Your task to perform on an android device: open app "LinkedIn" Image 0: 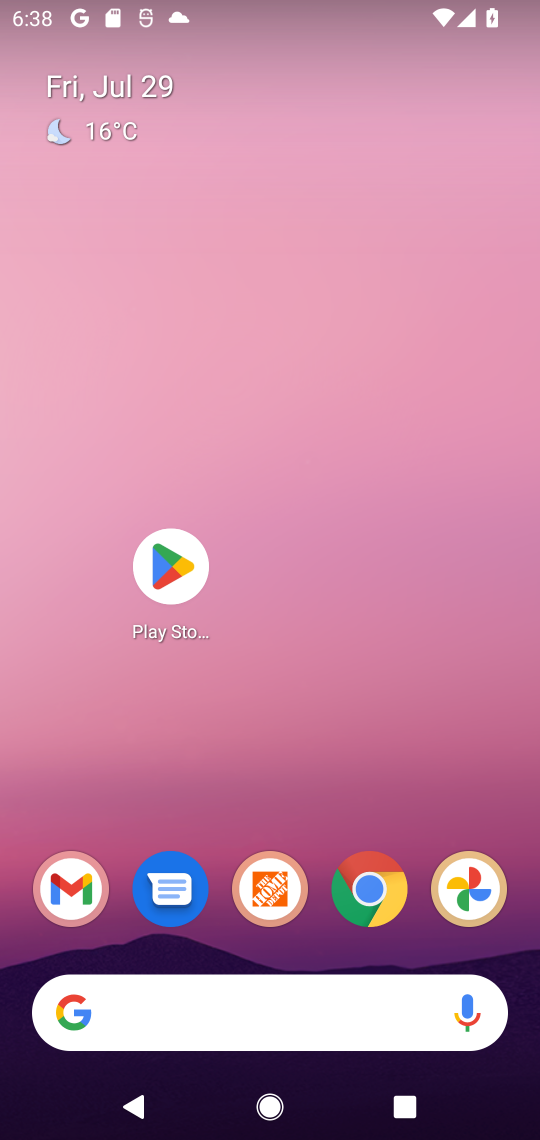
Step 0: click (157, 566)
Your task to perform on an android device: open app "LinkedIn" Image 1: 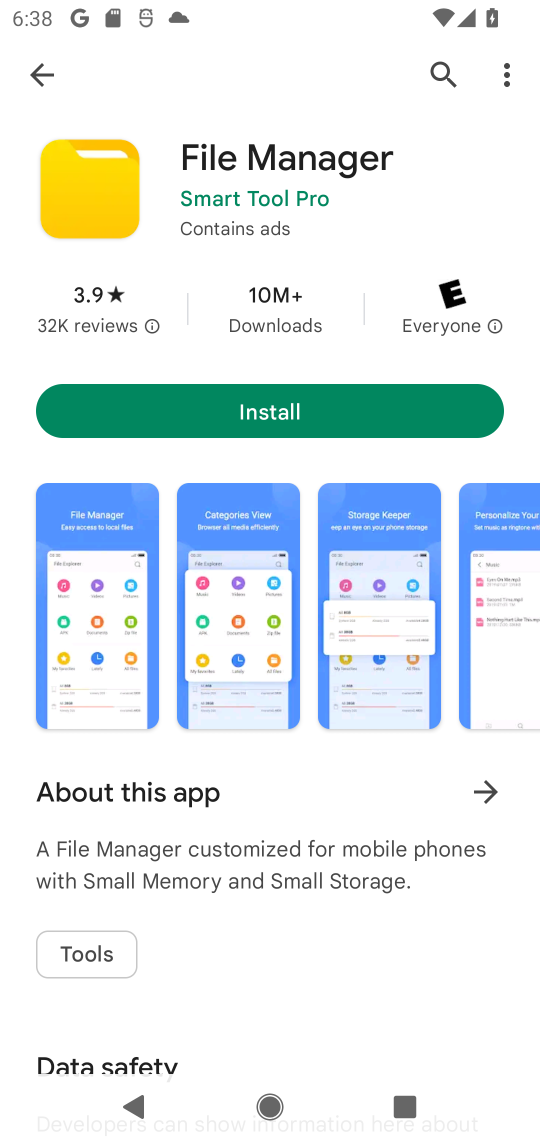
Step 1: click (439, 61)
Your task to perform on an android device: open app "LinkedIn" Image 2: 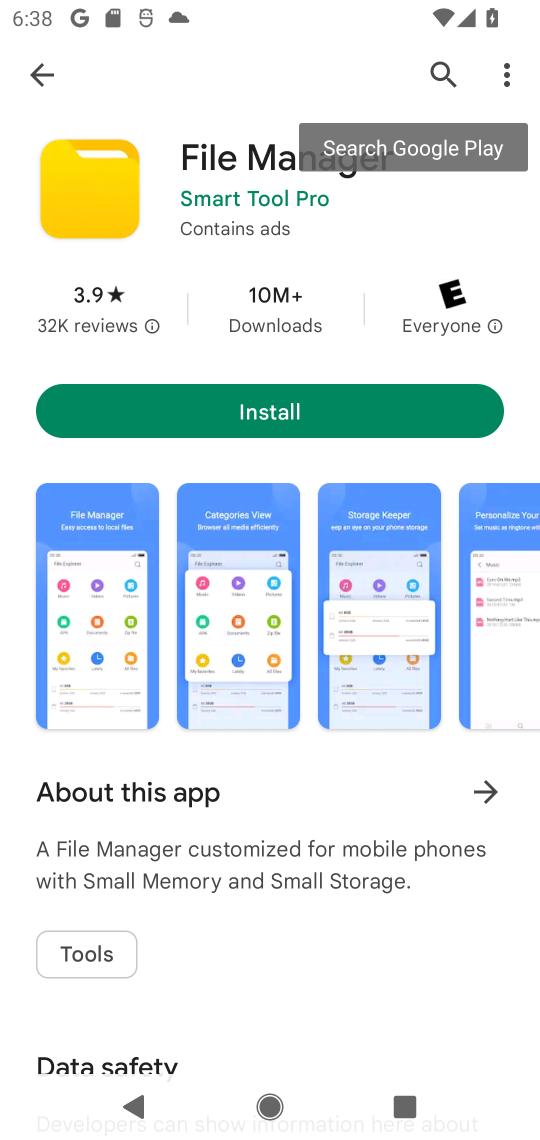
Step 2: click (432, 72)
Your task to perform on an android device: open app "LinkedIn" Image 3: 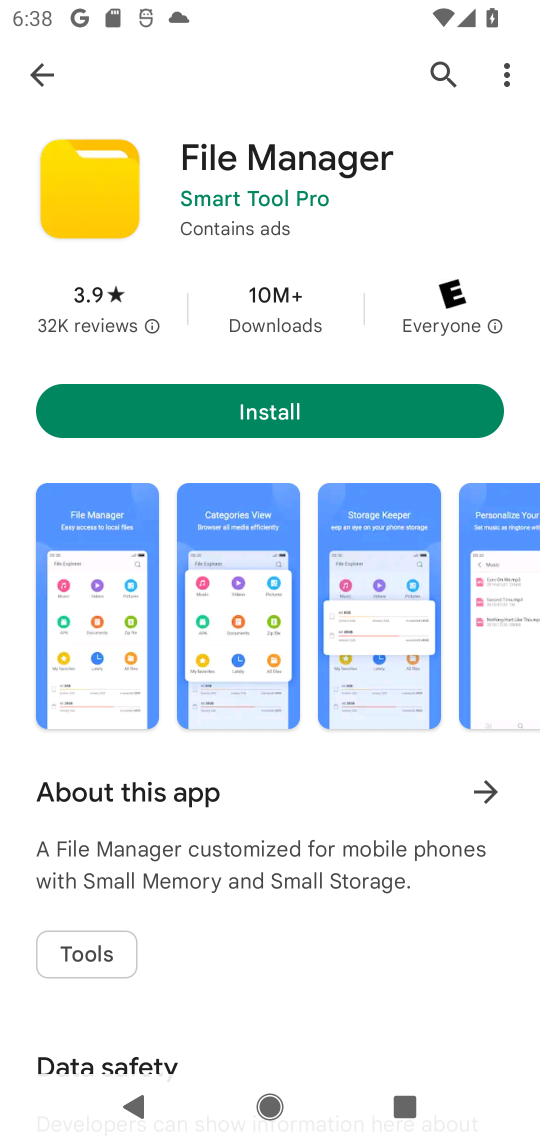
Step 3: click (439, 70)
Your task to perform on an android device: open app "LinkedIn" Image 4: 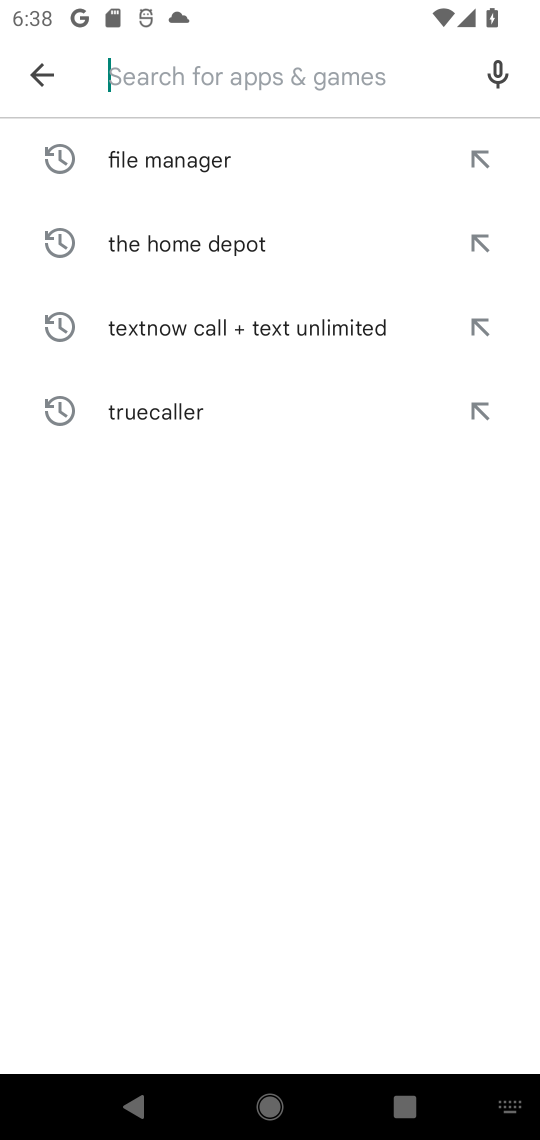
Step 4: type "LinkedIn"
Your task to perform on an android device: open app "LinkedIn" Image 5: 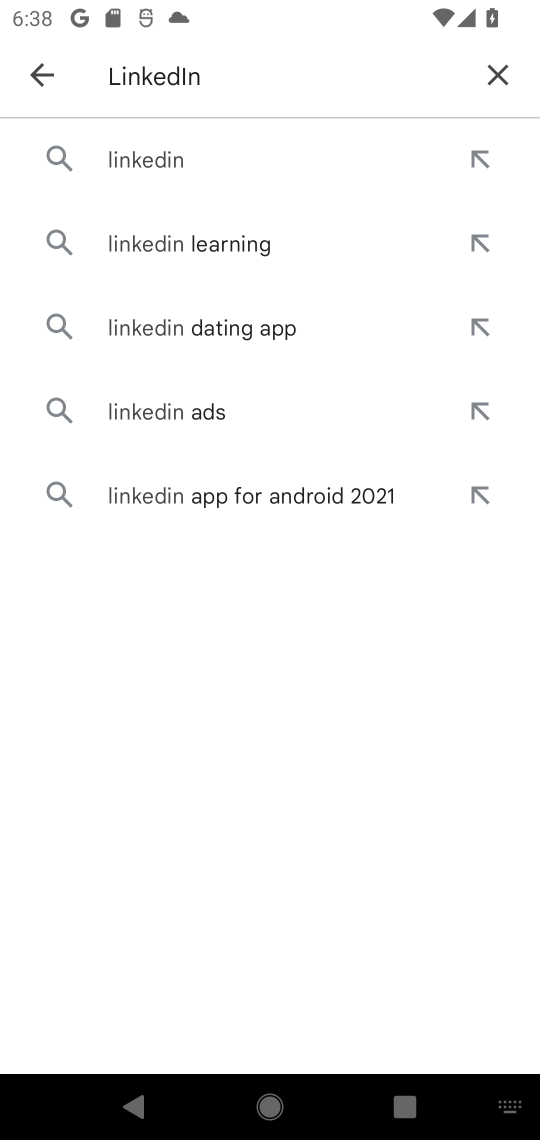
Step 5: click (153, 156)
Your task to perform on an android device: open app "LinkedIn" Image 6: 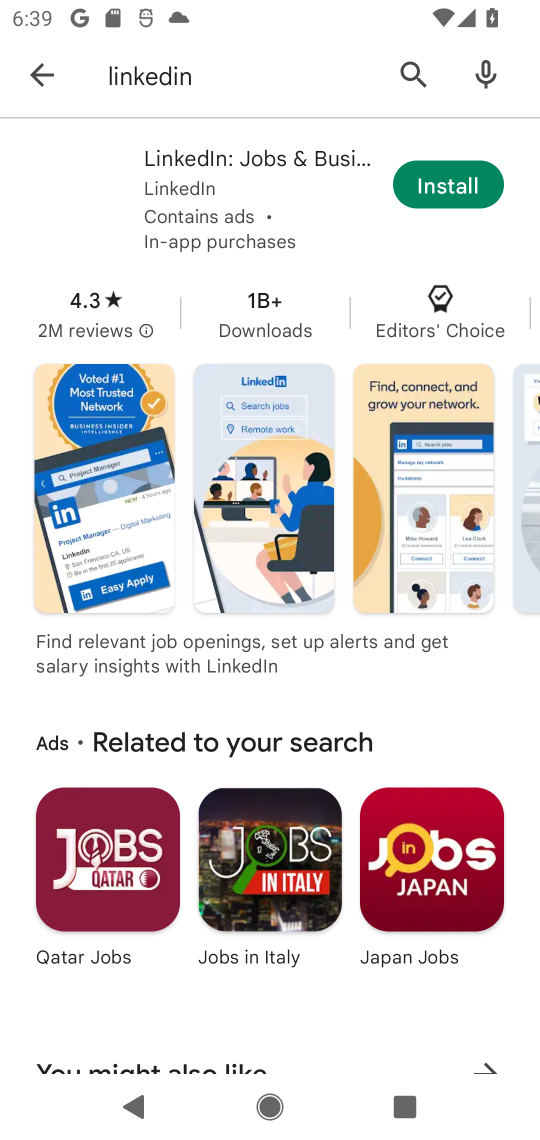
Step 6: task complete